Your task to perform on an android device: Open calendar and show me the first week of next month Image 0: 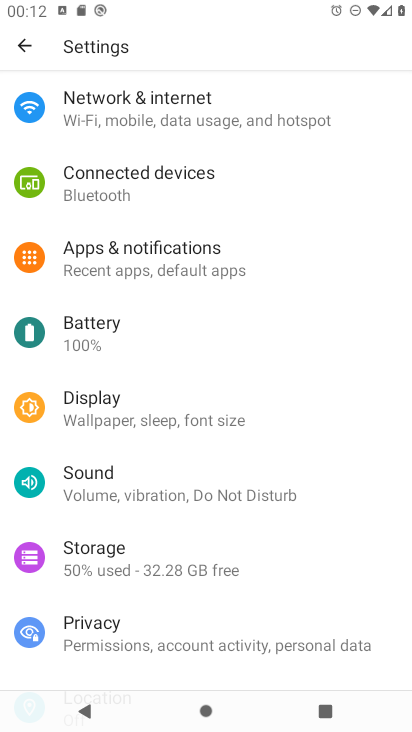
Step 0: press home button
Your task to perform on an android device: Open calendar and show me the first week of next month Image 1: 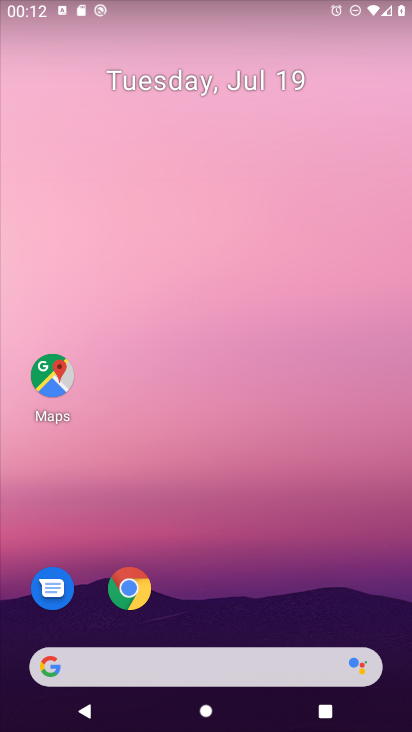
Step 1: drag from (349, 416) to (323, 104)
Your task to perform on an android device: Open calendar and show me the first week of next month Image 2: 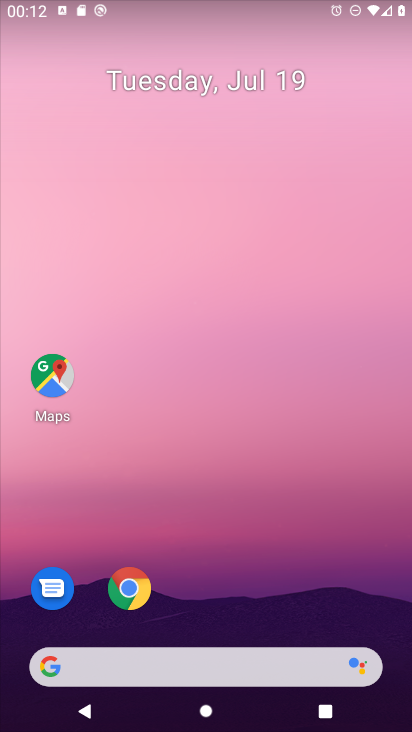
Step 2: drag from (384, 619) to (313, 40)
Your task to perform on an android device: Open calendar and show me the first week of next month Image 3: 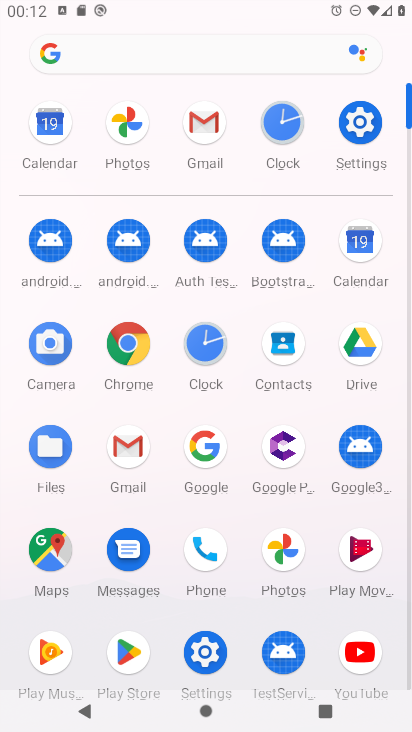
Step 3: click (358, 243)
Your task to perform on an android device: Open calendar and show me the first week of next month Image 4: 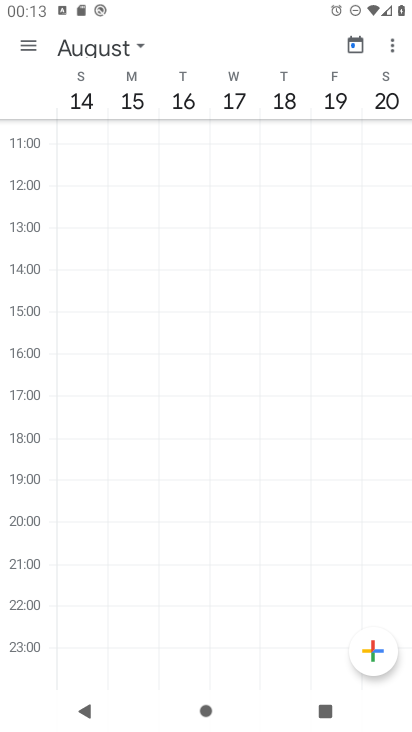
Step 4: click (29, 45)
Your task to perform on an android device: Open calendar and show me the first week of next month Image 5: 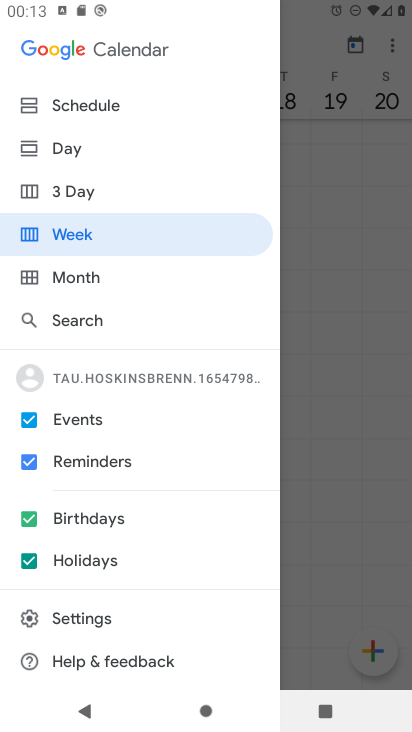
Step 5: click (88, 235)
Your task to perform on an android device: Open calendar and show me the first week of next month Image 6: 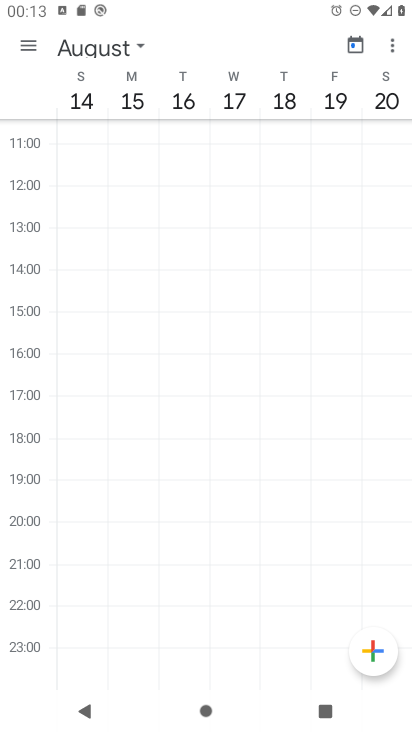
Step 6: click (138, 45)
Your task to perform on an android device: Open calendar and show me the first week of next month Image 7: 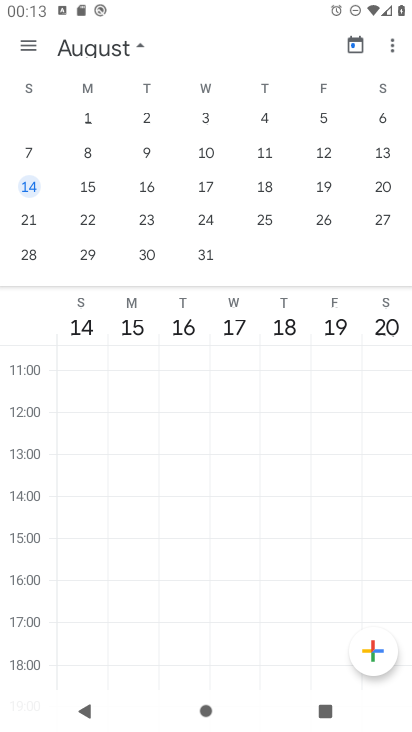
Step 7: click (28, 146)
Your task to perform on an android device: Open calendar and show me the first week of next month Image 8: 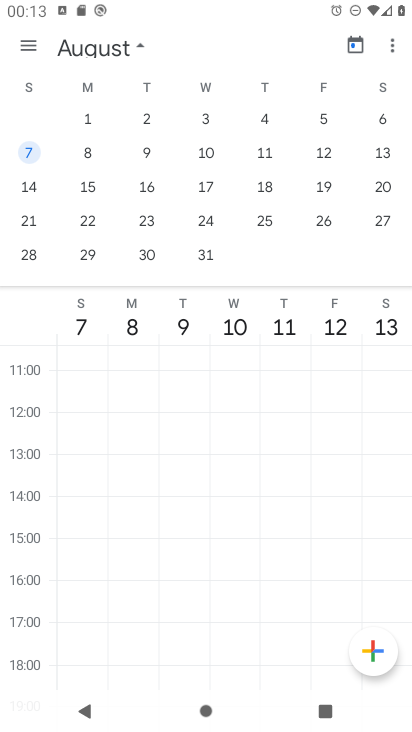
Step 8: task complete